Your task to perform on an android device: Go to CNN.com Image 0: 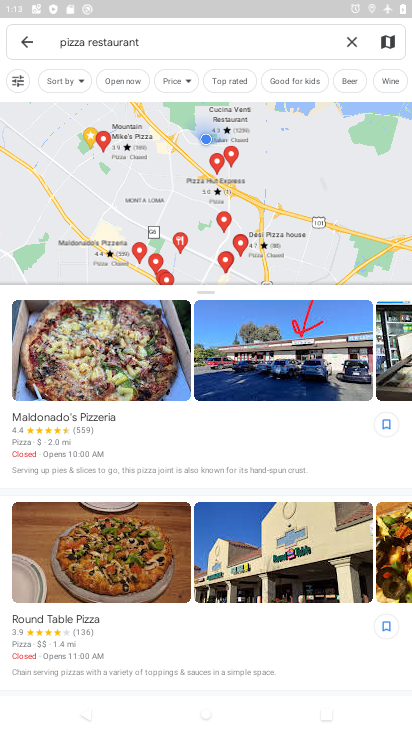
Step 0: press home button
Your task to perform on an android device: Go to CNN.com Image 1: 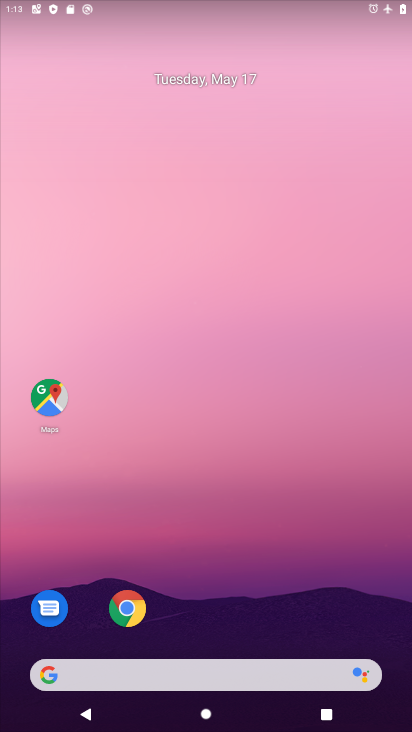
Step 1: click (161, 681)
Your task to perform on an android device: Go to CNN.com Image 2: 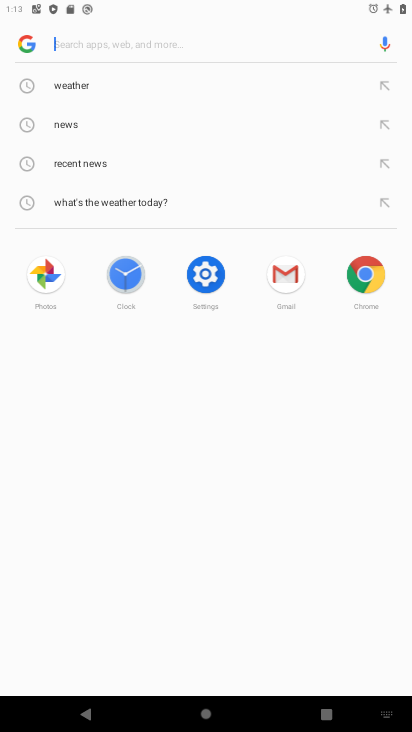
Step 2: type "cnn.com"
Your task to perform on an android device: Go to CNN.com Image 3: 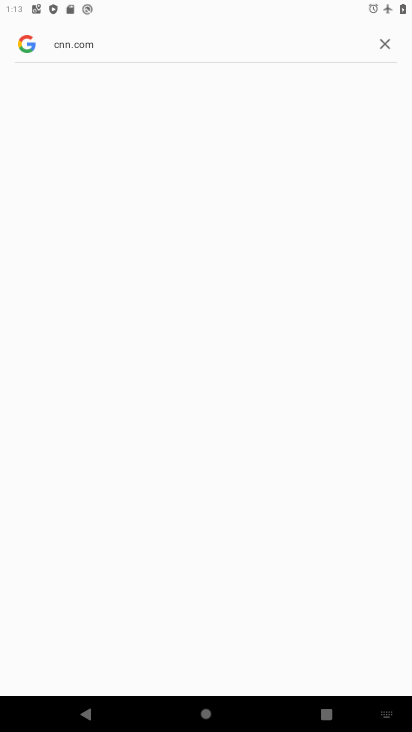
Step 3: click (182, 39)
Your task to perform on an android device: Go to CNN.com Image 4: 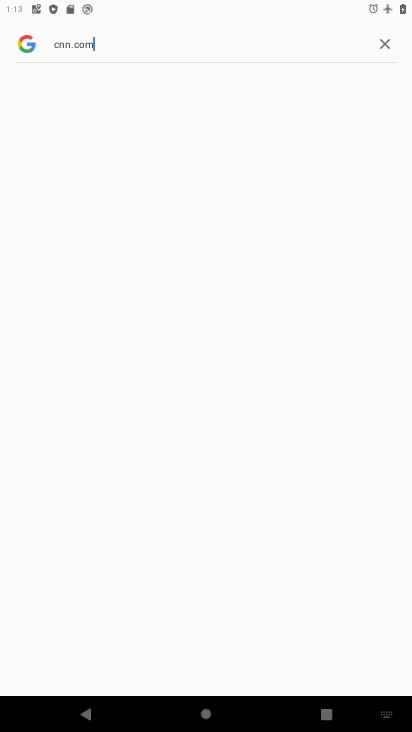
Step 4: click (182, 39)
Your task to perform on an android device: Go to CNN.com Image 5: 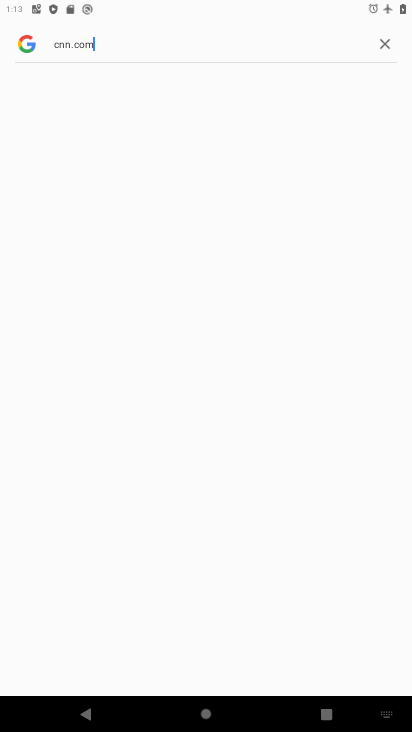
Step 5: click (182, 39)
Your task to perform on an android device: Go to CNN.com Image 6: 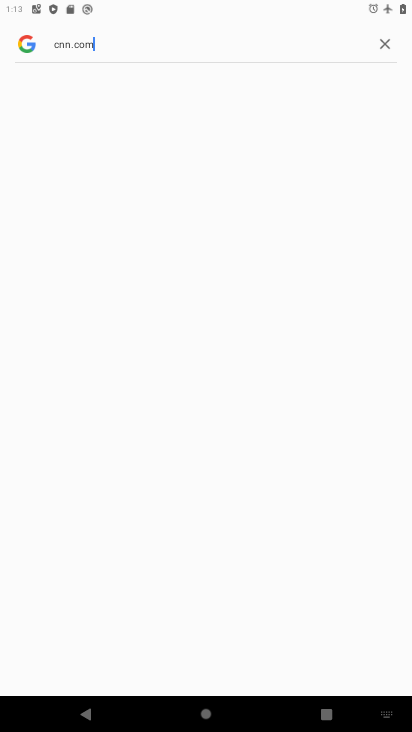
Step 6: click (182, 39)
Your task to perform on an android device: Go to CNN.com Image 7: 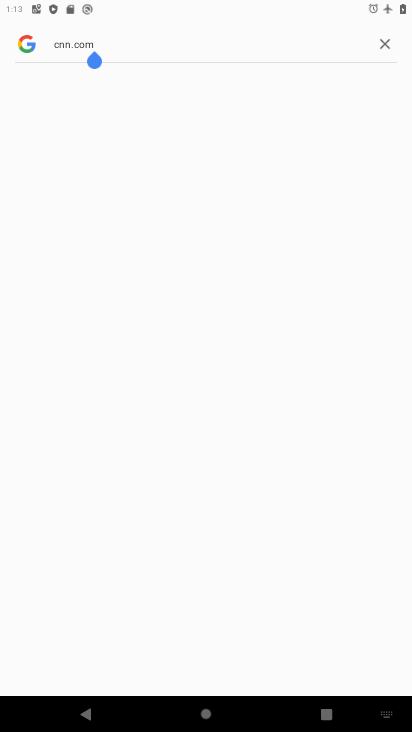
Step 7: drag from (256, 6) to (303, 561)
Your task to perform on an android device: Go to CNN.com Image 8: 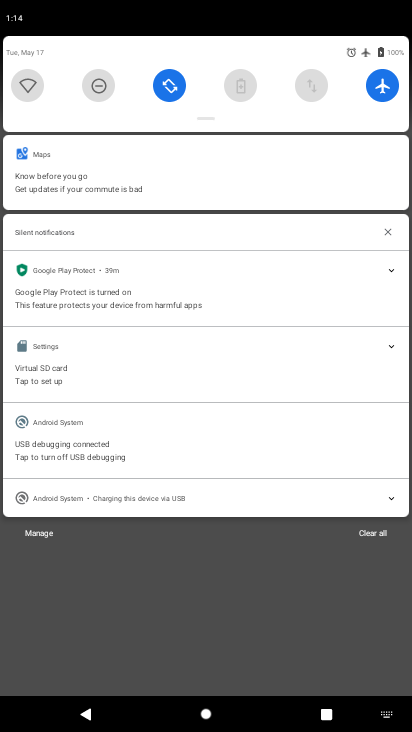
Step 8: click (392, 95)
Your task to perform on an android device: Go to CNN.com Image 9: 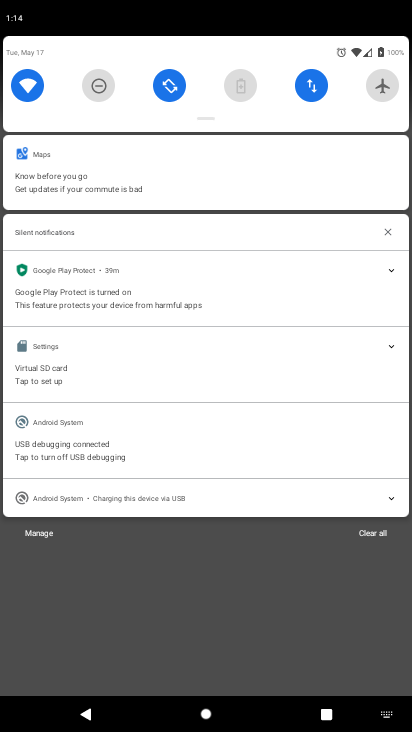
Step 9: task complete